Your task to perform on an android device: Go to location settings Image 0: 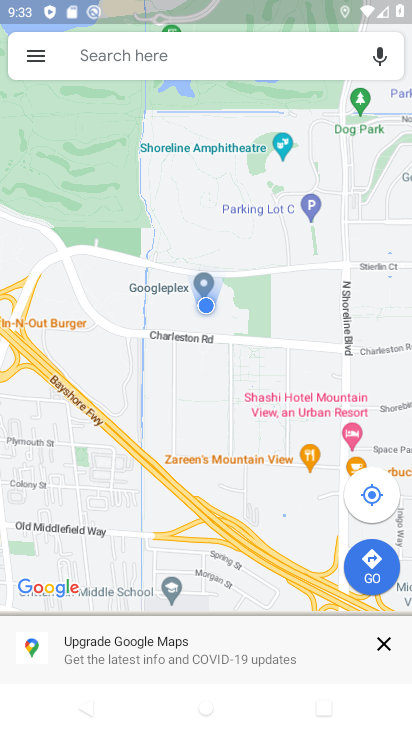
Step 0: press home button
Your task to perform on an android device: Go to location settings Image 1: 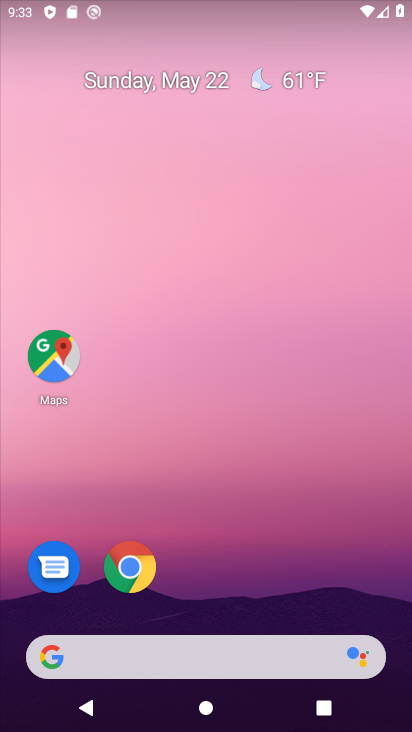
Step 1: drag from (207, 626) to (104, 17)
Your task to perform on an android device: Go to location settings Image 2: 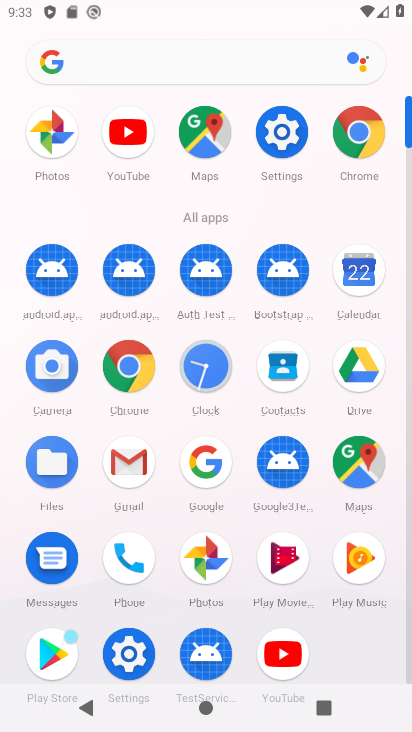
Step 2: click (149, 645)
Your task to perform on an android device: Go to location settings Image 3: 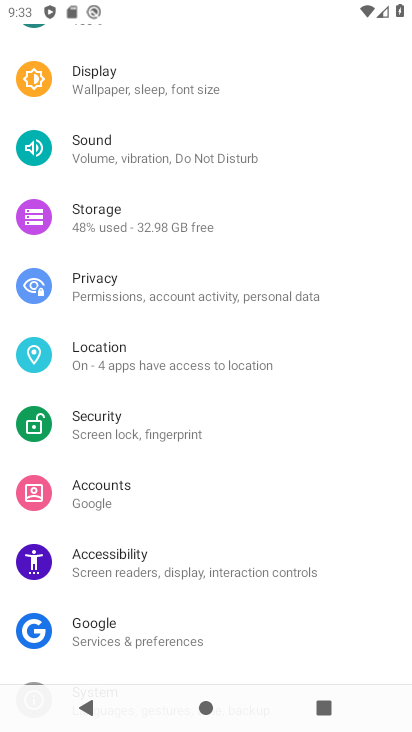
Step 3: click (116, 358)
Your task to perform on an android device: Go to location settings Image 4: 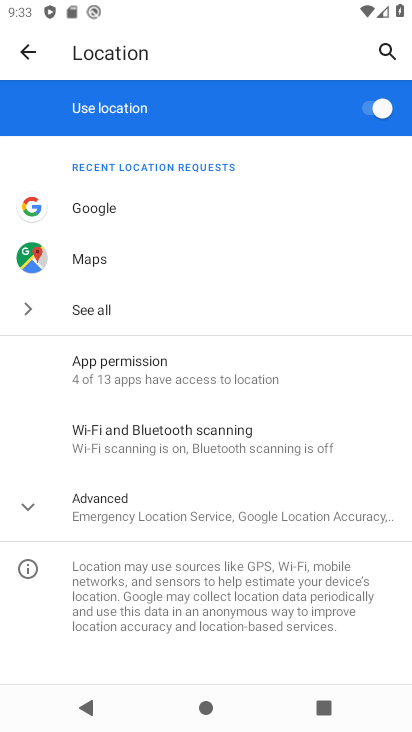
Step 4: task complete